Your task to perform on an android device: What's the weather today? Image 0: 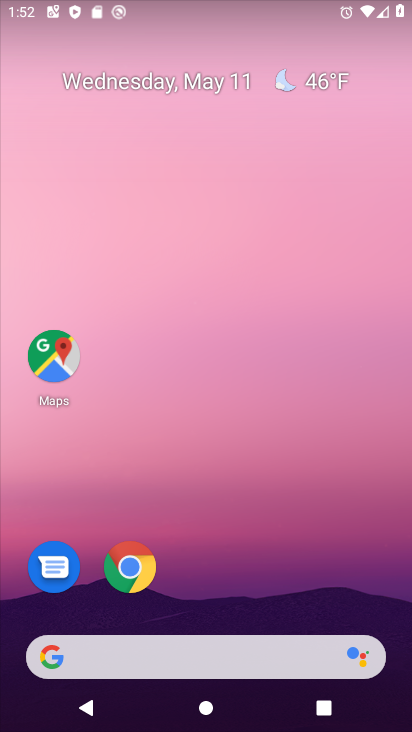
Step 0: click (302, 660)
Your task to perform on an android device: What's the weather today? Image 1: 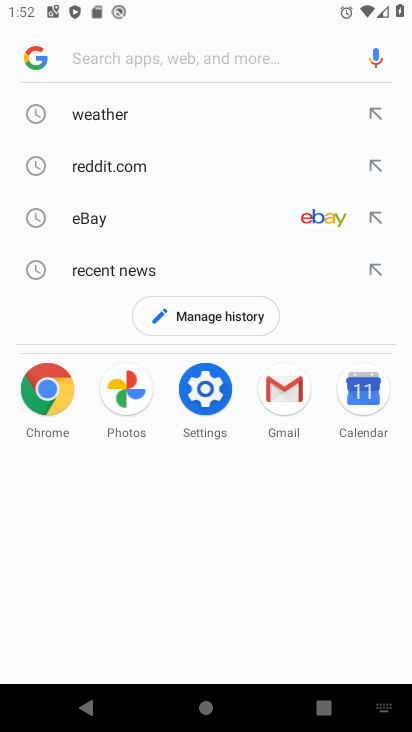
Step 1: click (116, 126)
Your task to perform on an android device: What's the weather today? Image 2: 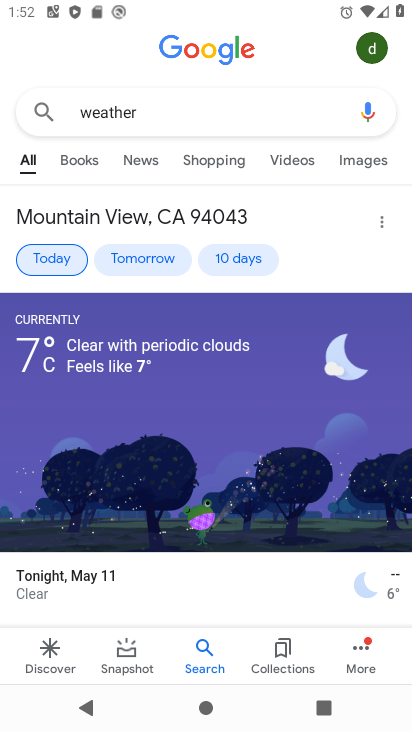
Step 2: click (45, 376)
Your task to perform on an android device: What's the weather today? Image 3: 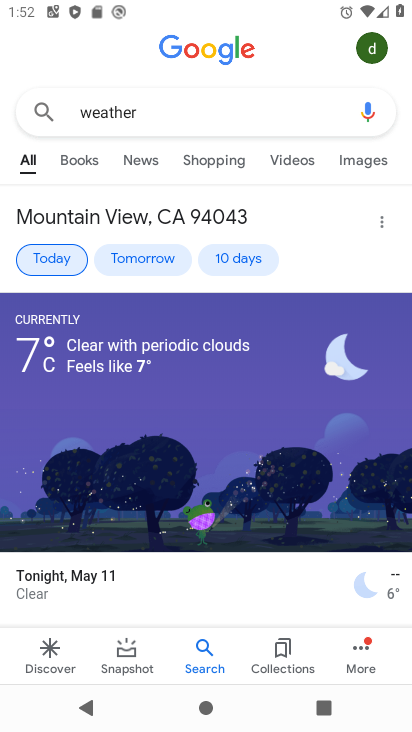
Step 3: task complete